Your task to perform on an android device: Find coffee shops on Maps Image 0: 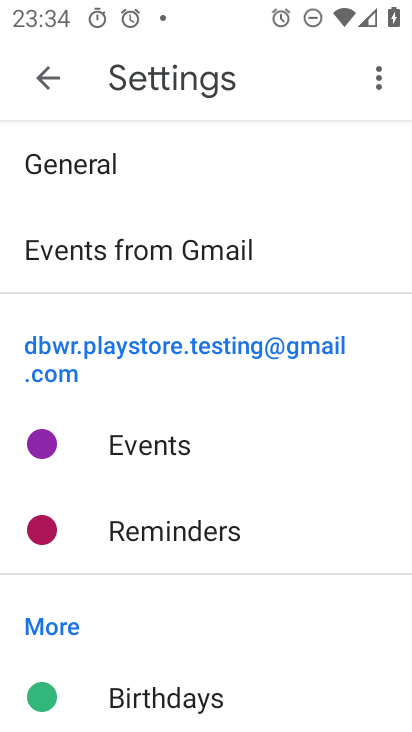
Step 0: press home button
Your task to perform on an android device: Find coffee shops on Maps Image 1: 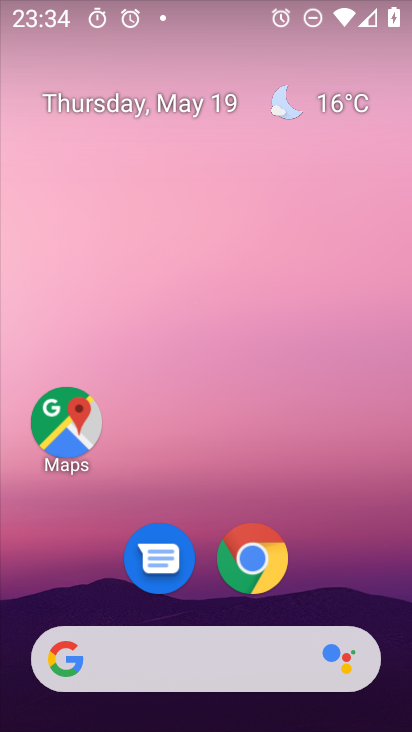
Step 1: drag from (224, 723) to (224, 109)
Your task to perform on an android device: Find coffee shops on Maps Image 2: 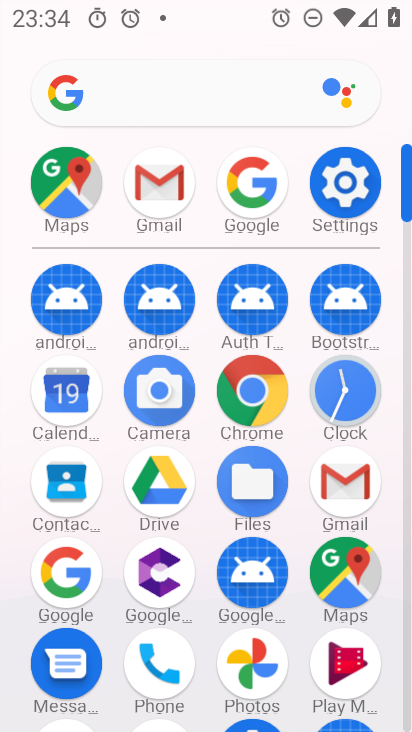
Step 2: click (342, 590)
Your task to perform on an android device: Find coffee shops on Maps Image 3: 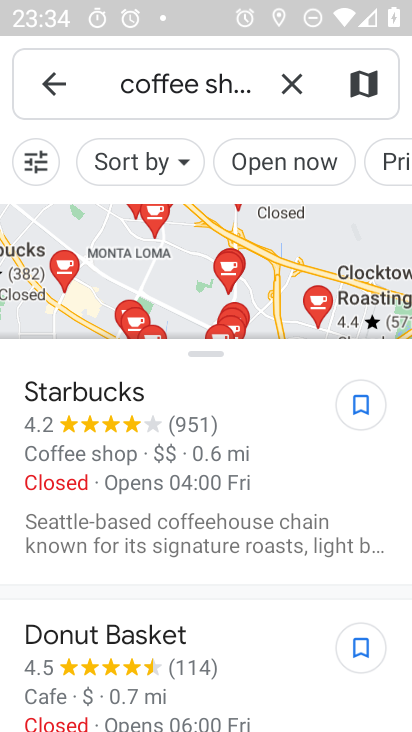
Step 3: task complete